Your task to perform on an android device: Open calendar and show me the second week of next month Image 0: 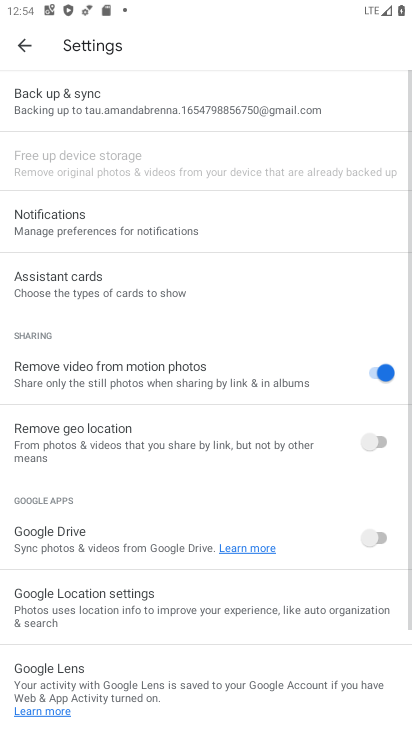
Step 0: press home button
Your task to perform on an android device: Open calendar and show me the second week of next month Image 1: 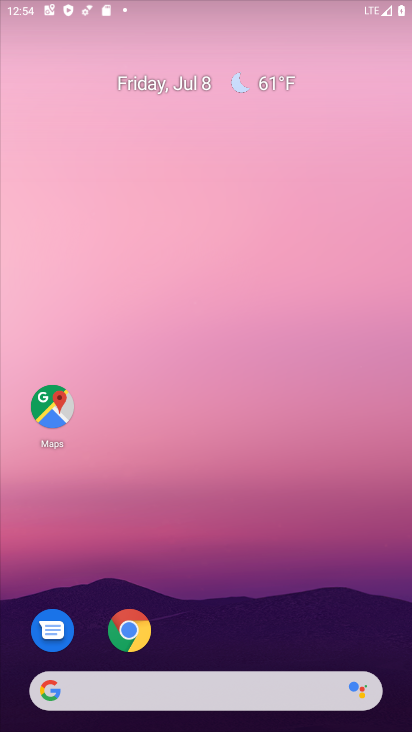
Step 1: drag from (384, 625) to (290, 68)
Your task to perform on an android device: Open calendar and show me the second week of next month Image 2: 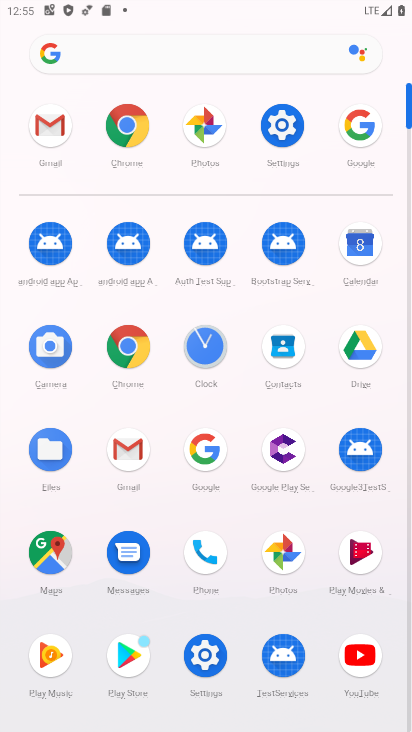
Step 2: click (369, 253)
Your task to perform on an android device: Open calendar and show me the second week of next month Image 3: 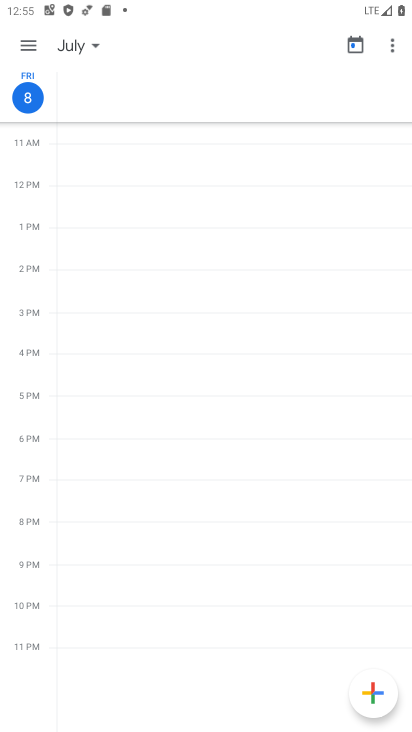
Step 3: click (68, 51)
Your task to perform on an android device: Open calendar and show me the second week of next month Image 4: 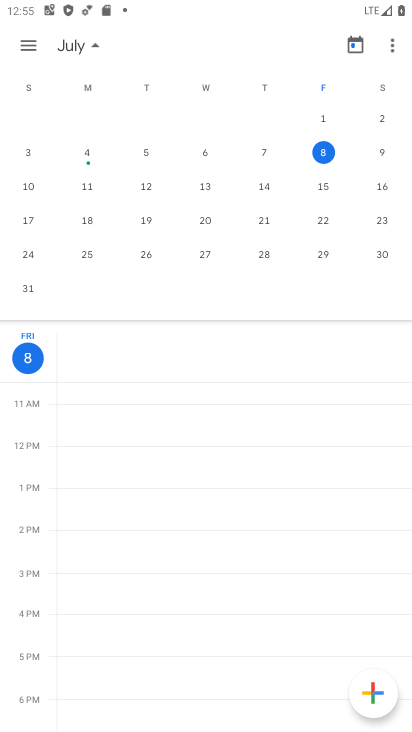
Step 4: drag from (367, 223) to (1, 201)
Your task to perform on an android device: Open calendar and show me the second week of next month Image 5: 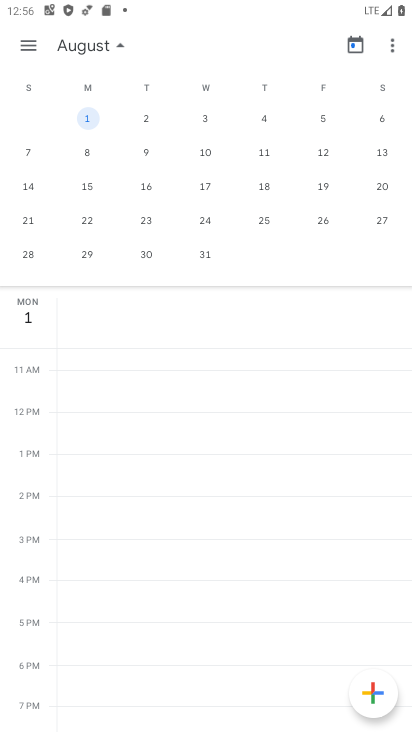
Step 5: click (143, 187)
Your task to perform on an android device: Open calendar and show me the second week of next month Image 6: 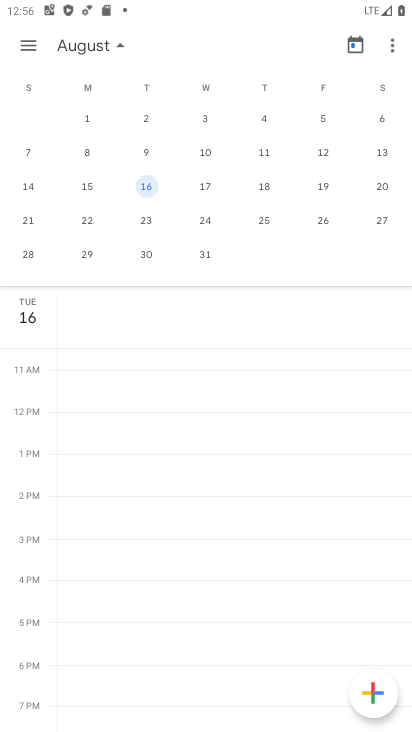
Step 6: task complete